Your task to perform on an android device: turn pop-ups on in chrome Image 0: 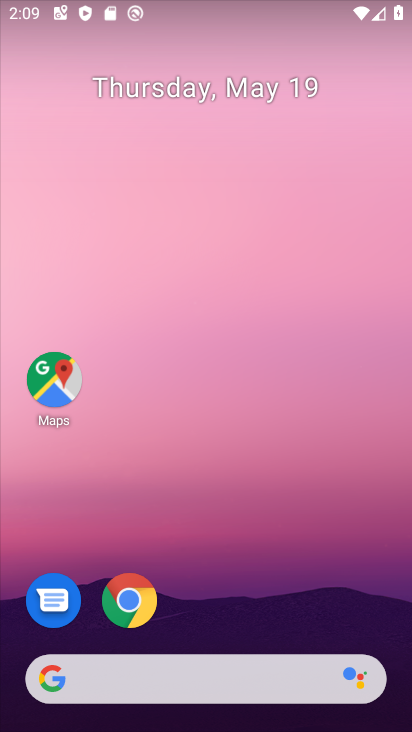
Step 0: click (141, 596)
Your task to perform on an android device: turn pop-ups on in chrome Image 1: 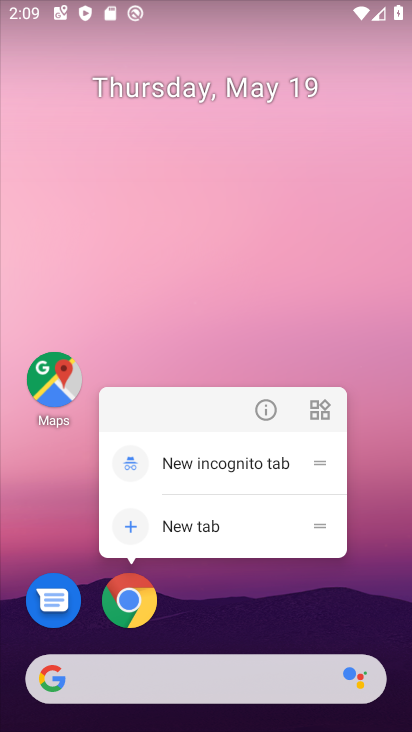
Step 1: click (129, 614)
Your task to perform on an android device: turn pop-ups on in chrome Image 2: 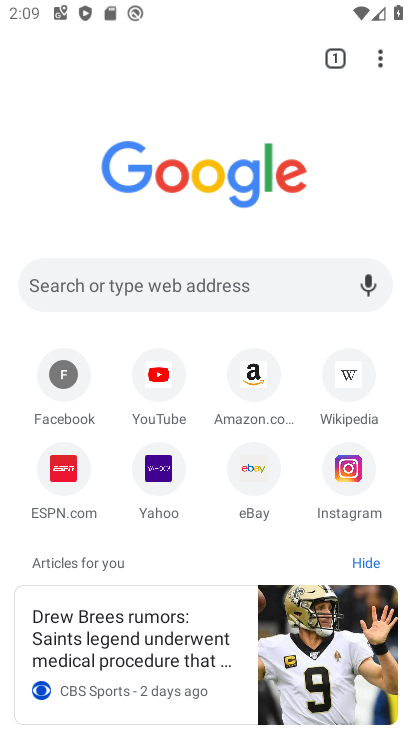
Step 2: click (383, 64)
Your task to perform on an android device: turn pop-ups on in chrome Image 3: 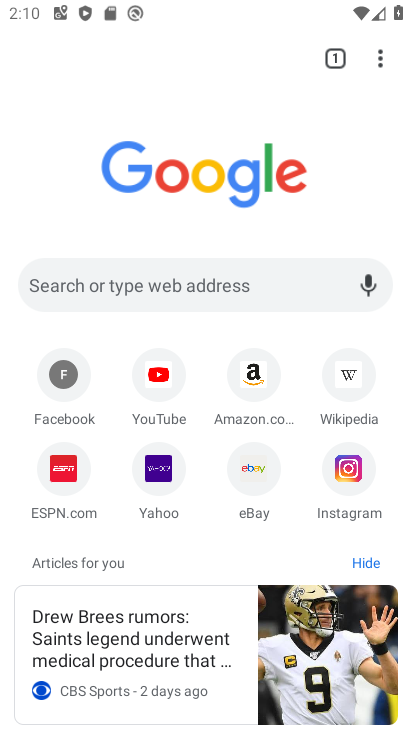
Step 3: click (375, 58)
Your task to perform on an android device: turn pop-ups on in chrome Image 4: 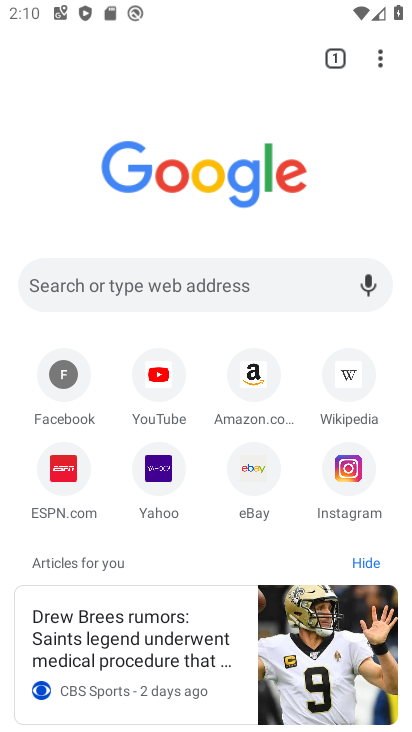
Step 4: click (384, 61)
Your task to perform on an android device: turn pop-ups on in chrome Image 5: 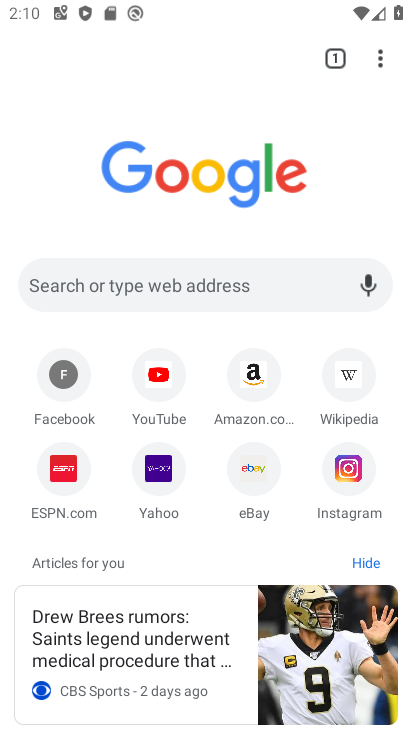
Step 5: click (378, 66)
Your task to perform on an android device: turn pop-ups on in chrome Image 6: 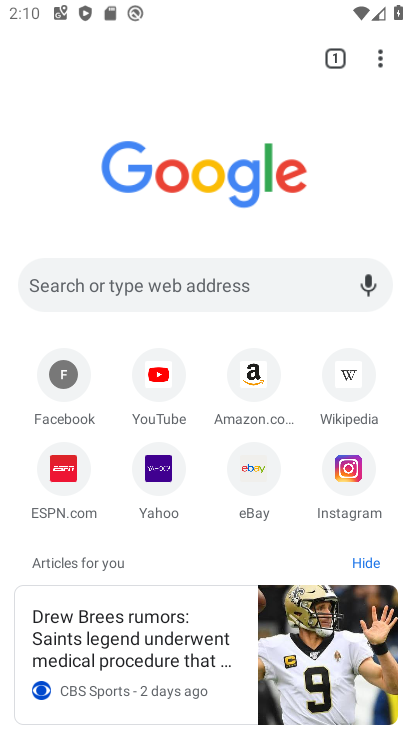
Step 6: click (376, 59)
Your task to perform on an android device: turn pop-ups on in chrome Image 7: 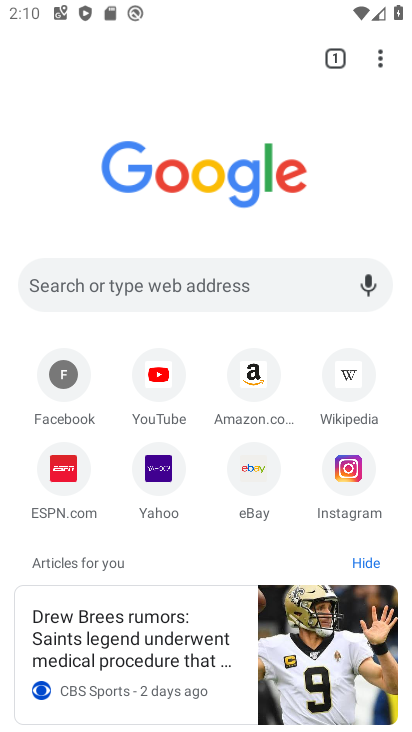
Step 7: click (385, 55)
Your task to perform on an android device: turn pop-ups on in chrome Image 8: 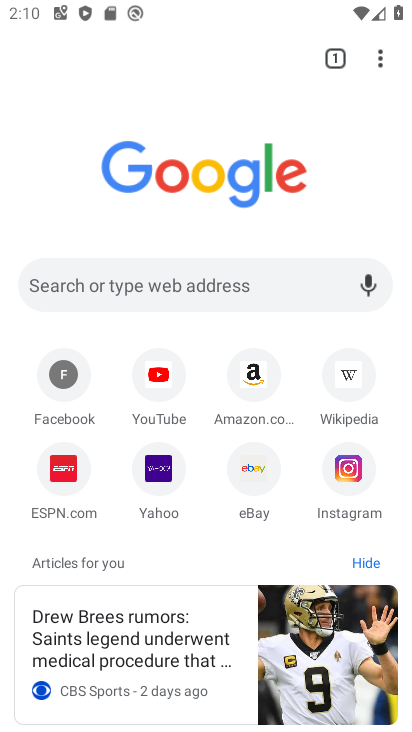
Step 8: click (384, 62)
Your task to perform on an android device: turn pop-ups on in chrome Image 9: 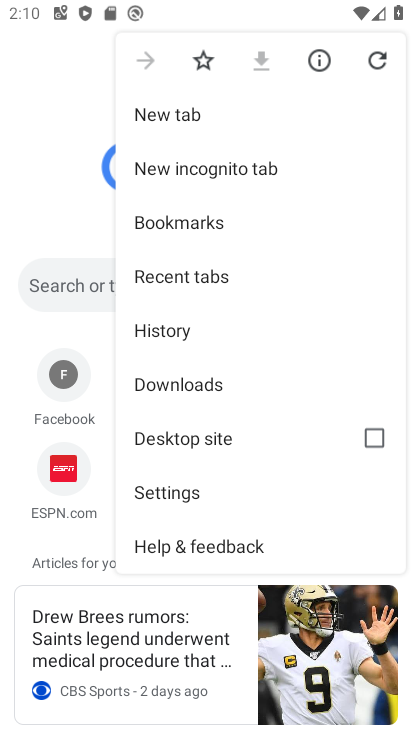
Step 9: click (178, 488)
Your task to perform on an android device: turn pop-ups on in chrome Image 10: 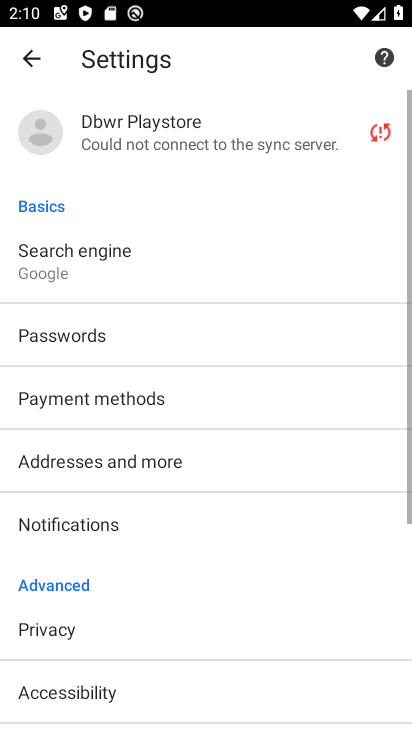
Step 10: drag from (163, 670) to (173, 226)
Your task to perform on an android device: turn pop-ups on in chrome Image 11: 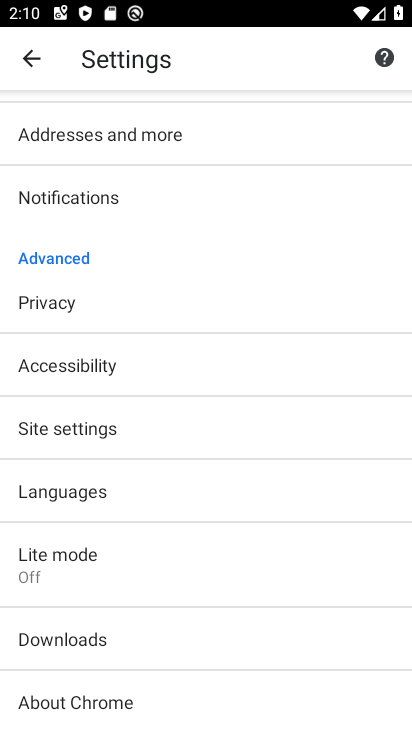
Step 11: click (71, 415)
Your task to perform on an android device: turn pop-ups on in chrome Image 12: 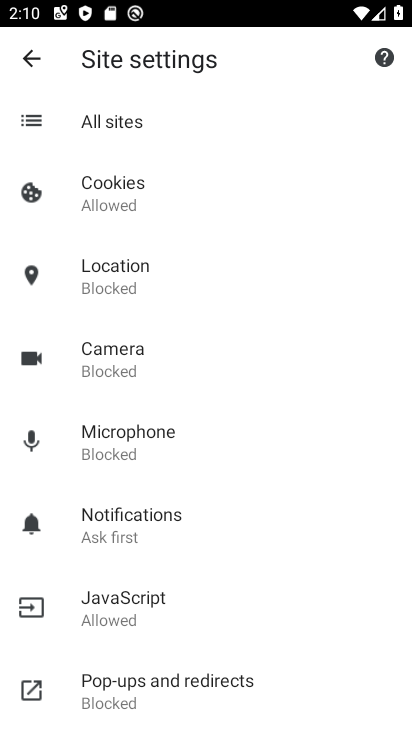
Step 12: click (143, 692)
Your task to perform on an android device: turn pop-ups on in chrome Image 13: 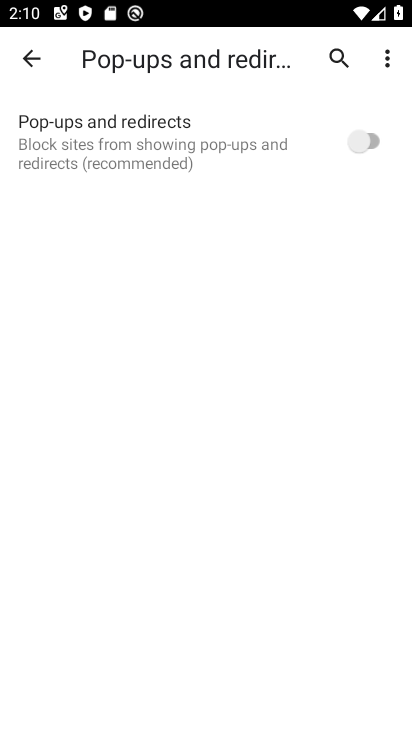
Step 13: click (371, 138)
Your task to perform on an android device: turn pop-ups on in chrome Image 14: 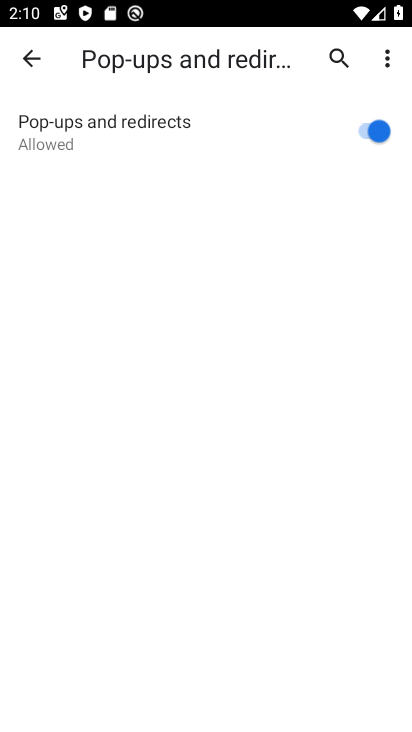
Step 14: task complete